Your task to perform on an android device: Open the stopwatch Image 0: 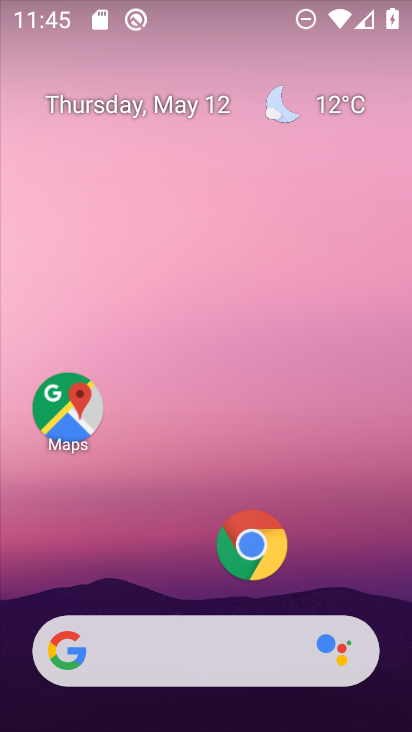
Step 0: drag from (193, 581) to (253, 90)
Your task to perform on an android device: Open the stopwatch Image 1: 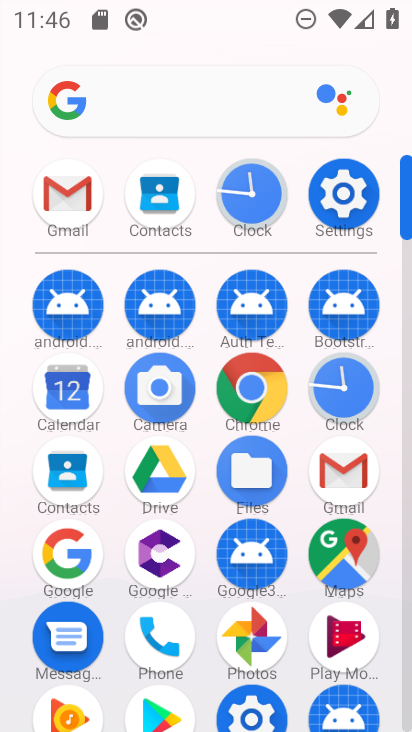
Step 1: click (253, 189)
Your task to perform on an android device: Open the stopwatch Image 2: 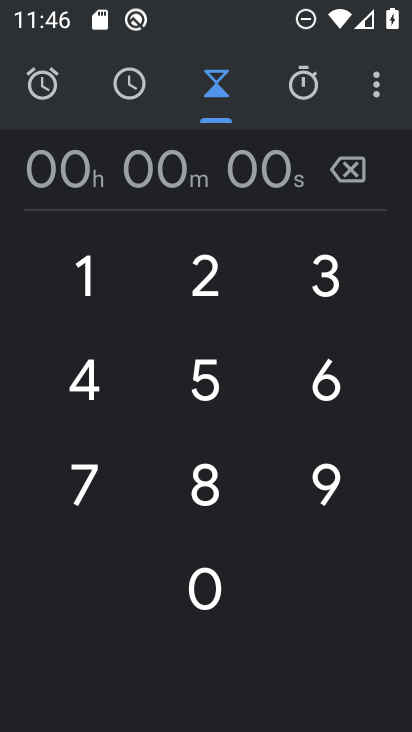
Step 2: click (213, 487)
Your task to perform on an android device: Open the stopwatch Image 3: 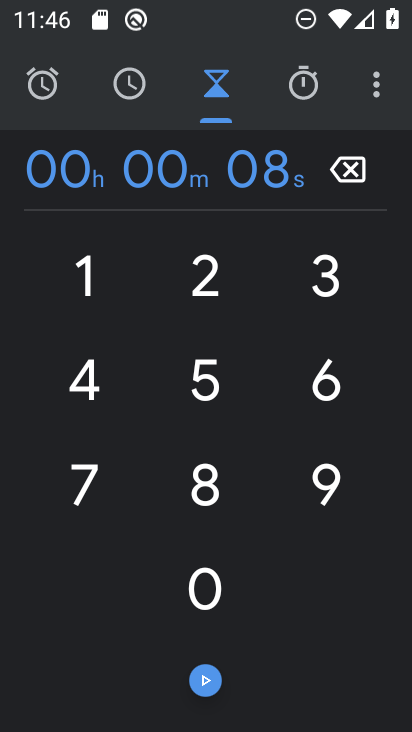
Step 3: click (211, 588)
Your task to perform on an android device: Open the stopwatch Image 4: 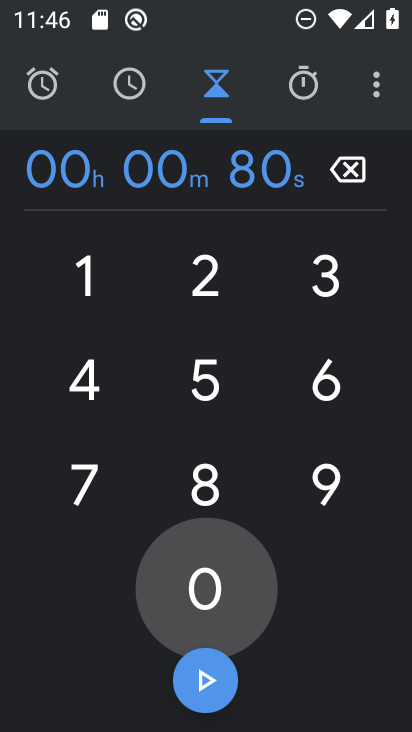
Step 4: click (211, 588)
Your task to perform on an android device: Open the stopwatch Image 5: 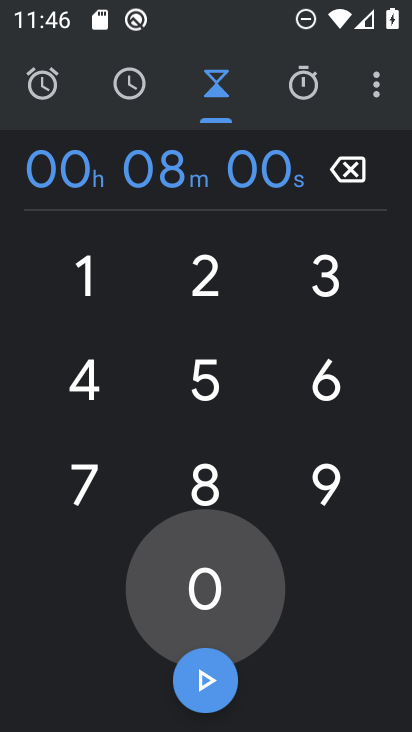
Step 5: click (211, 588)
Your task to perform on an android device: Open the stopwatch Image 6: 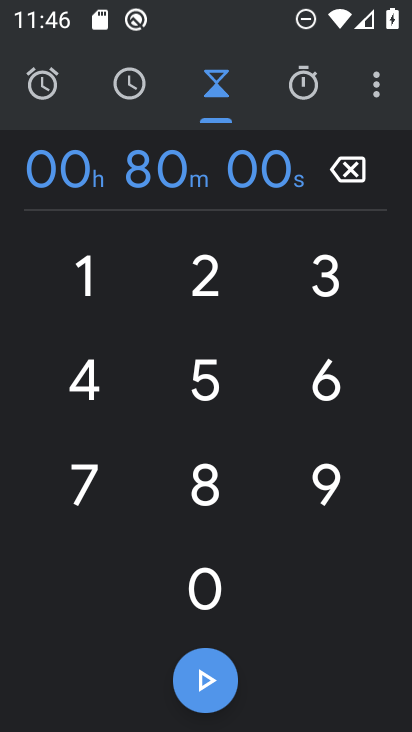
Step 6: click (204, 675)
Your task to perform on an android device: Open the stopwatch Image 7: 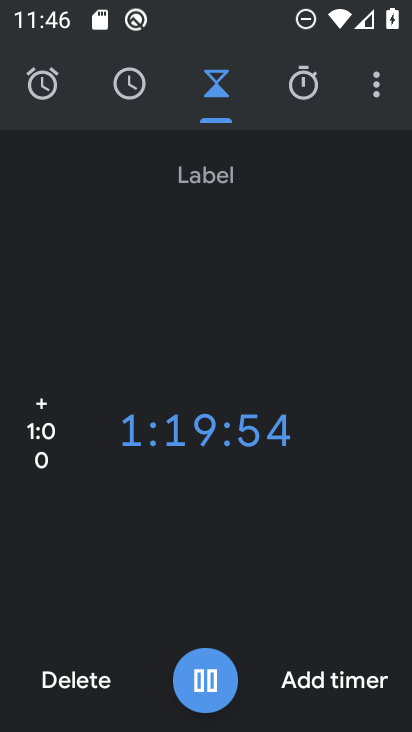
Step 7: click (79, 674)
Your task to perform on an android device: Open the stopwatch Image 8: 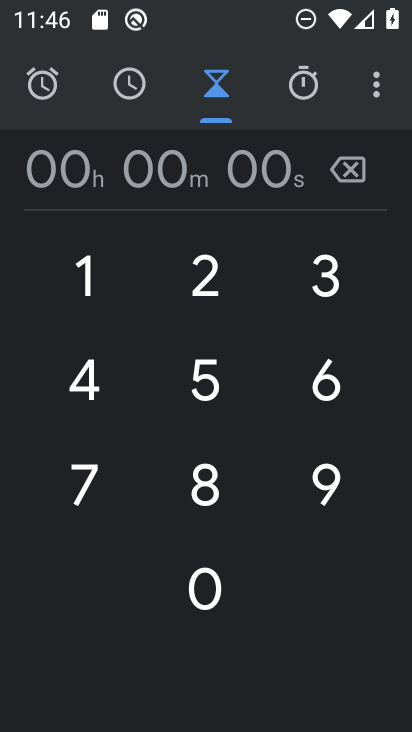
Step 8: click (303, 79)
Your task to perform on an android device: Open the stopwatch Image 9: 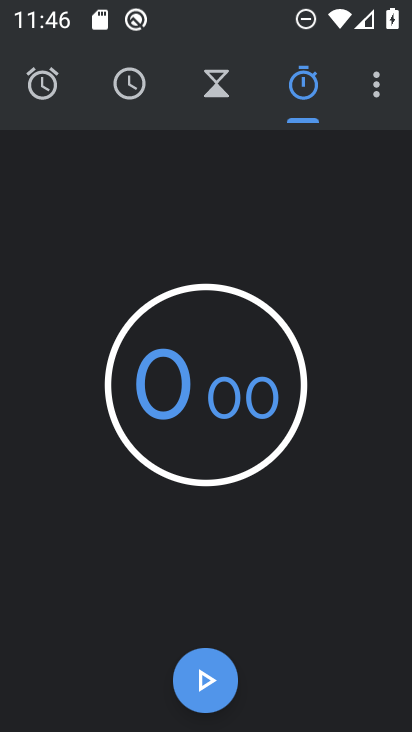
Step 9: click (203, 674)
Your task to perform on an android device: Open the stopwatch Image 10: 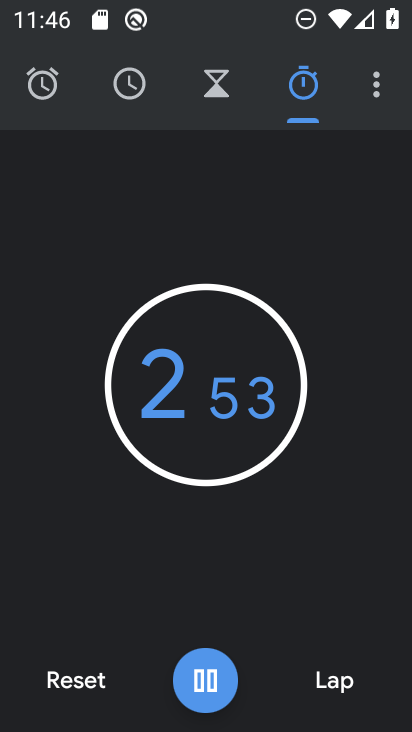
Step 10: task complete